Your task to perform on an android device: install app "AliExpress" Image 0: 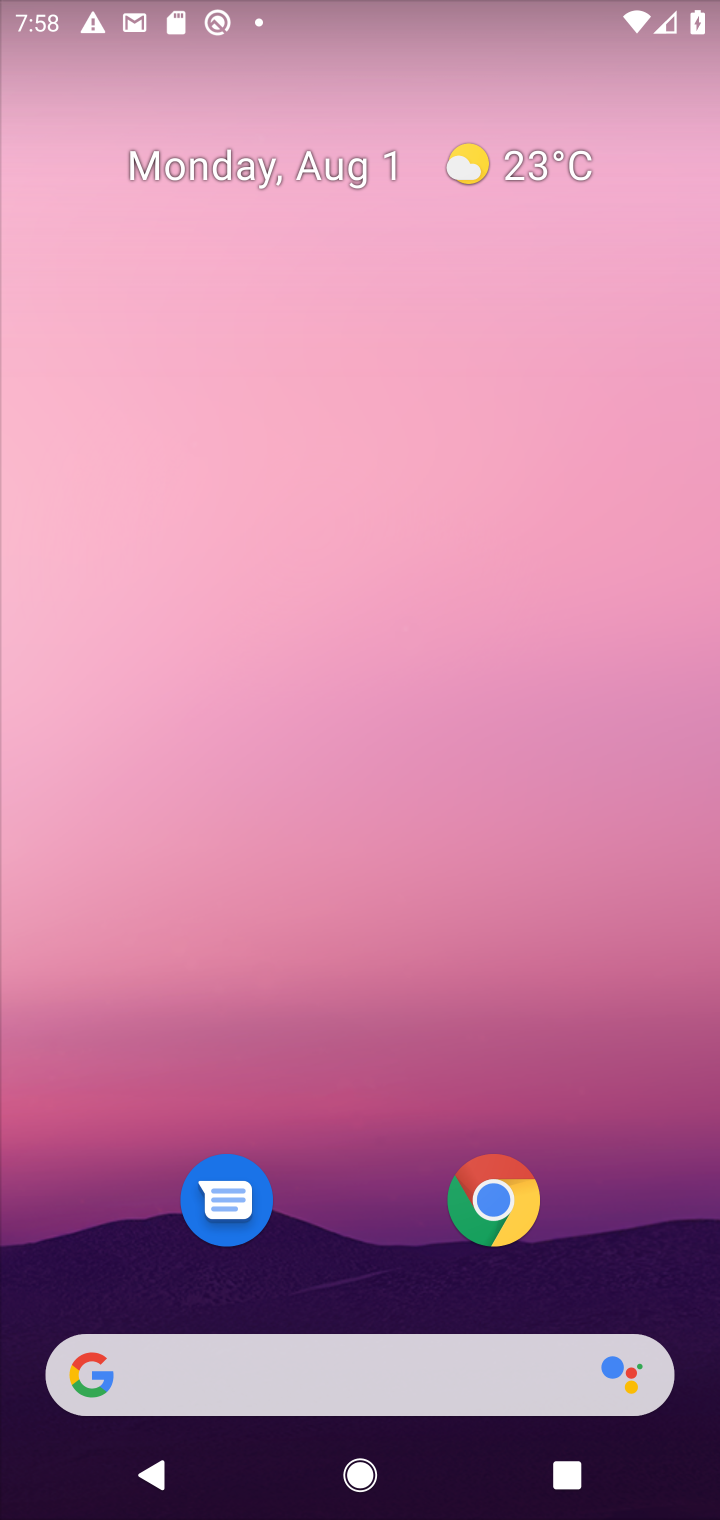
Step 0: press home button
Your task to perform on an android device: install app "AliExpress" Image 1: 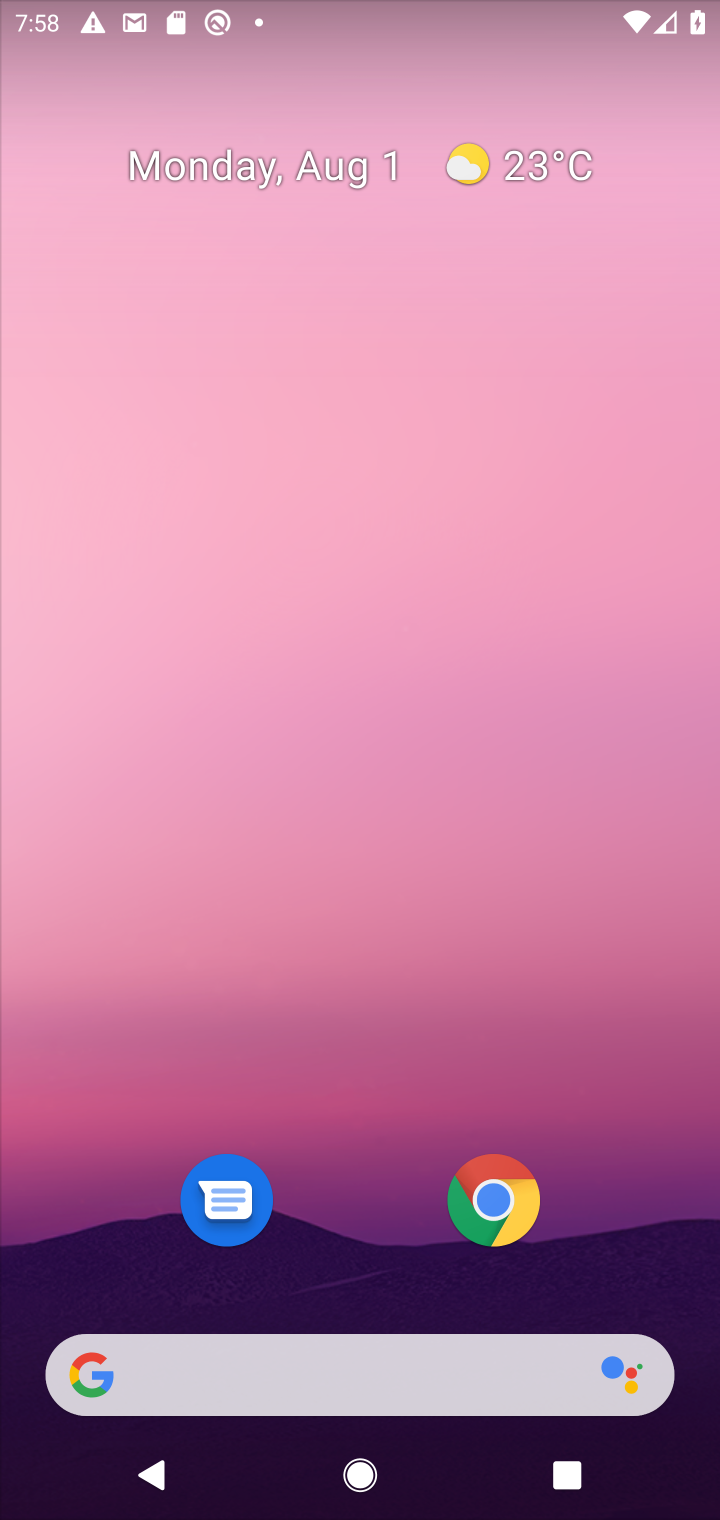
Step 1: drag from (343, 1263) to (365, 192)
Your task to perform on an android device: install app "AliExpress" Image 2: 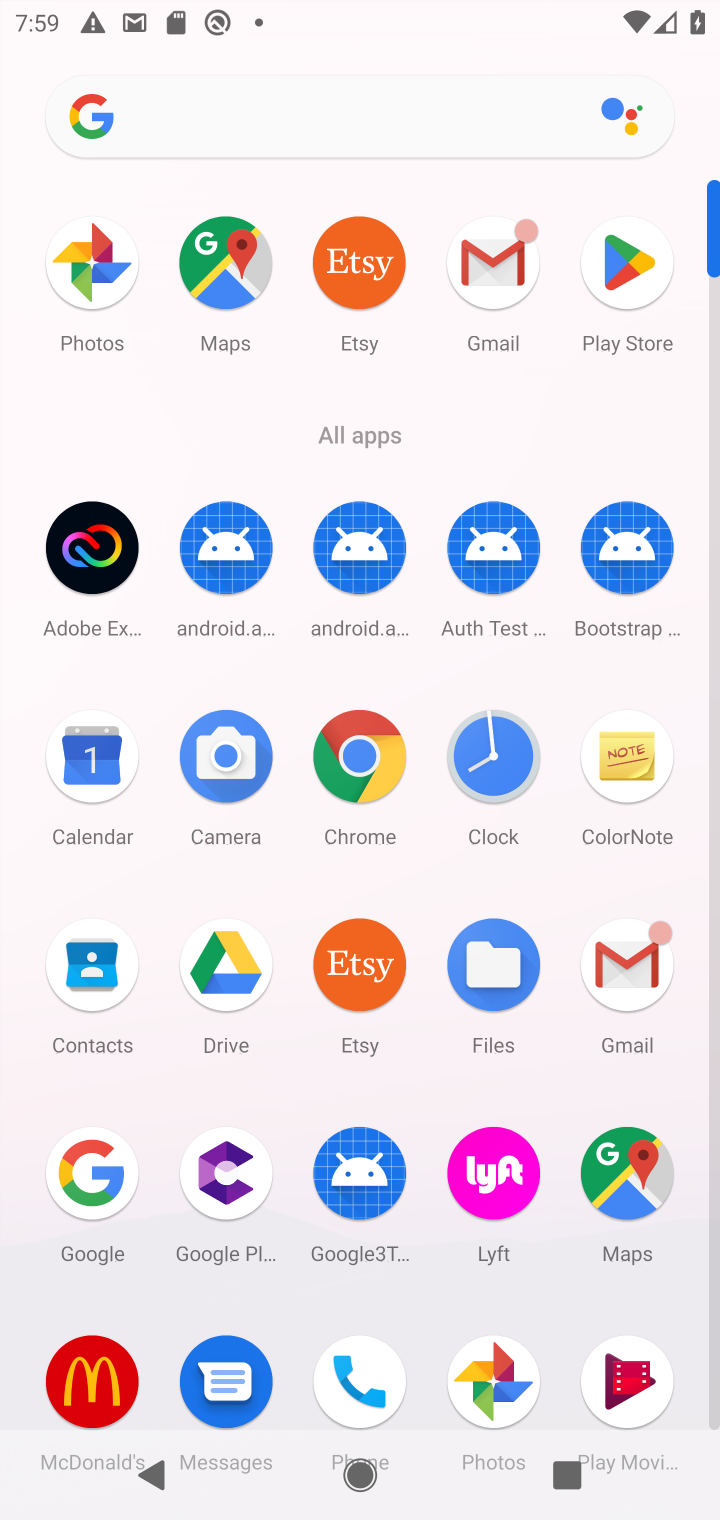
Step 2: click (634, 255)
Your task to perform on an android device: install app "AliExpress" Image 3: 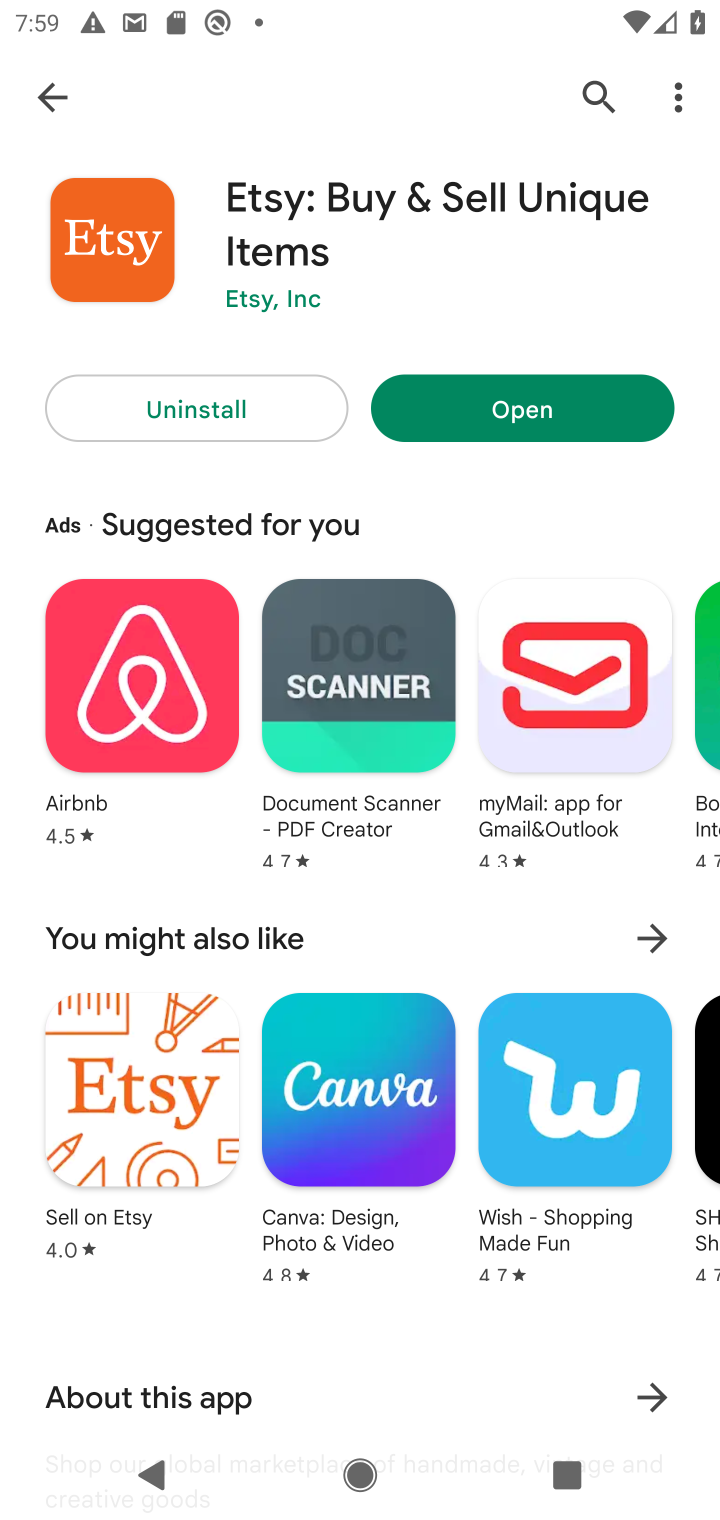
Step 3: click (41, 91)
Your task to perform on an android device: install app "AliExpress" Image 4: 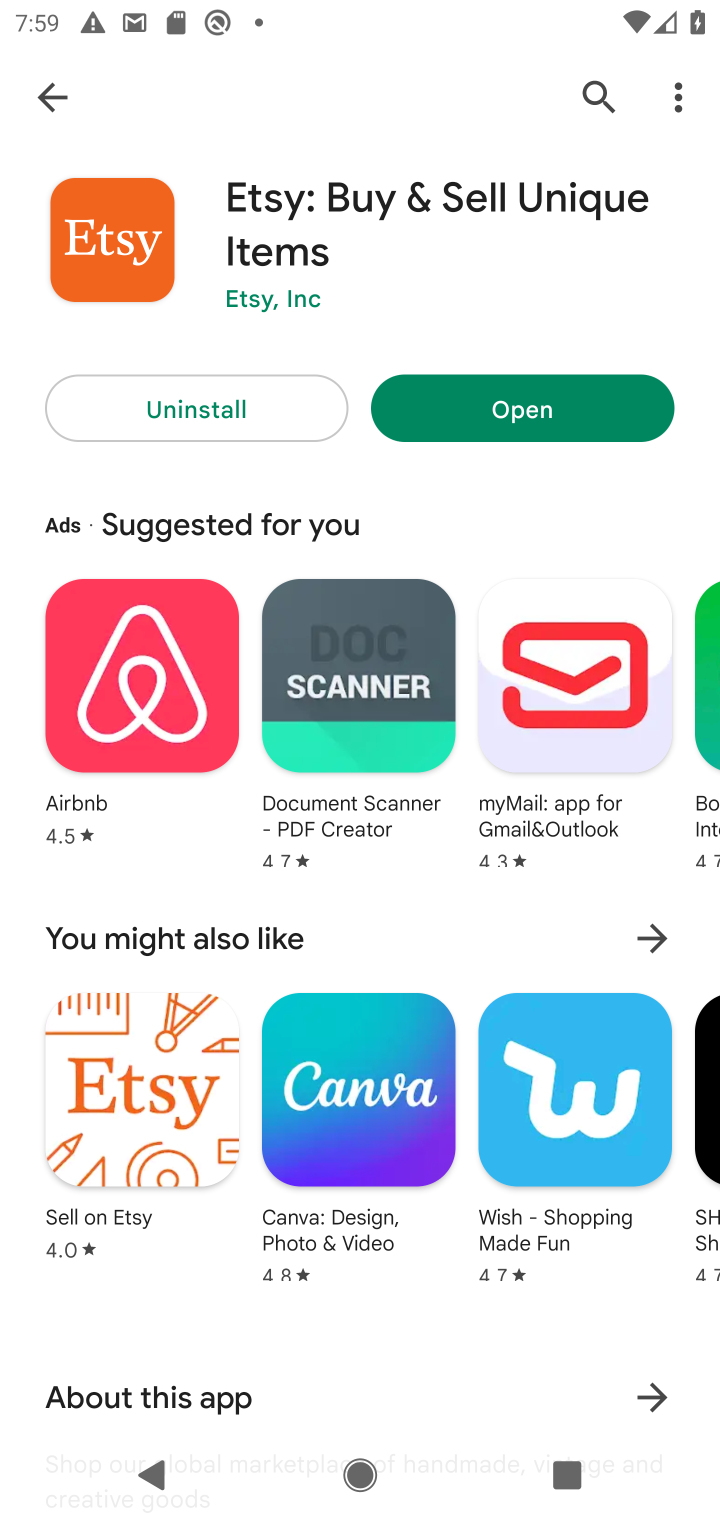
Step 4: click (588, 93)
Your task to perform on an android device: install app "AliExpress" Image 5: 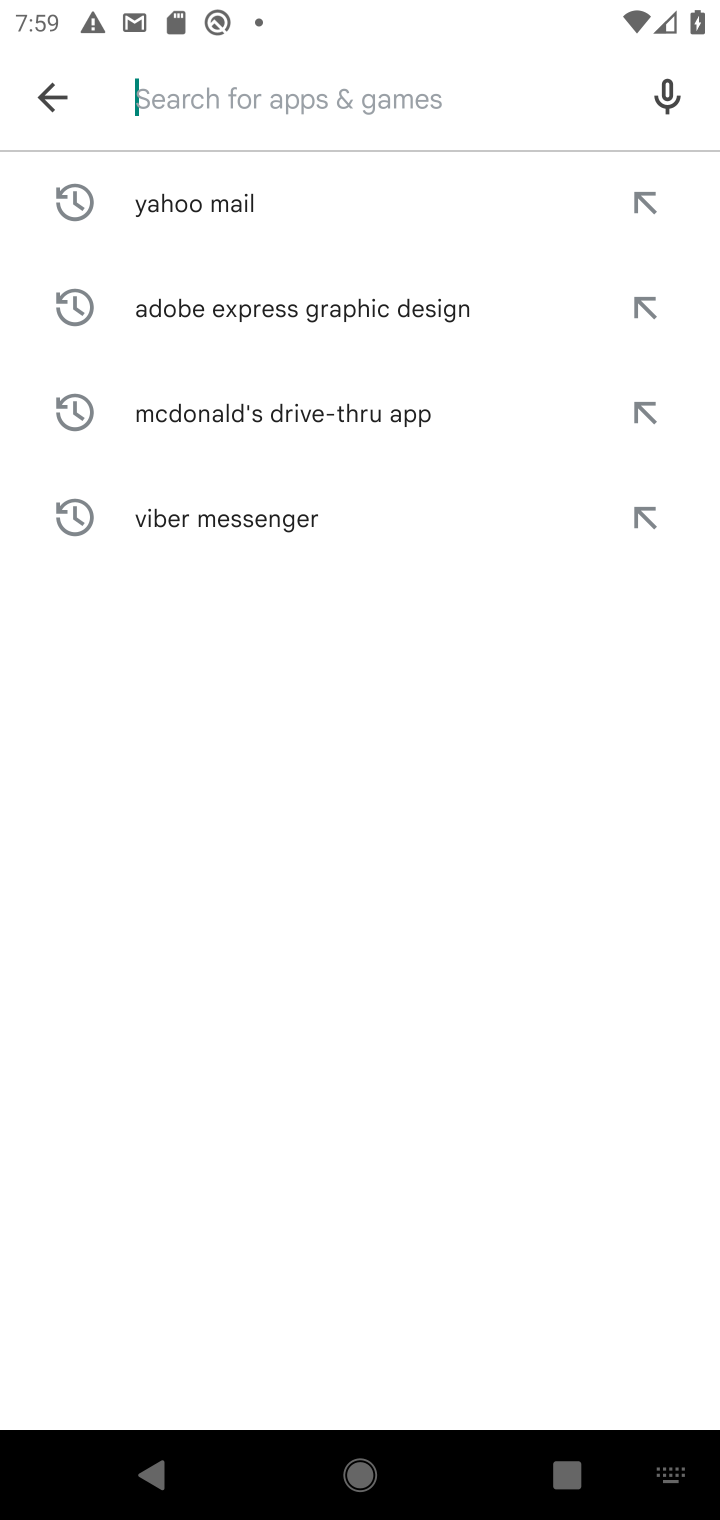
Step 5: type "AliExpress"
Your task to perform on an android device: install app "AliExpress" Image 6: 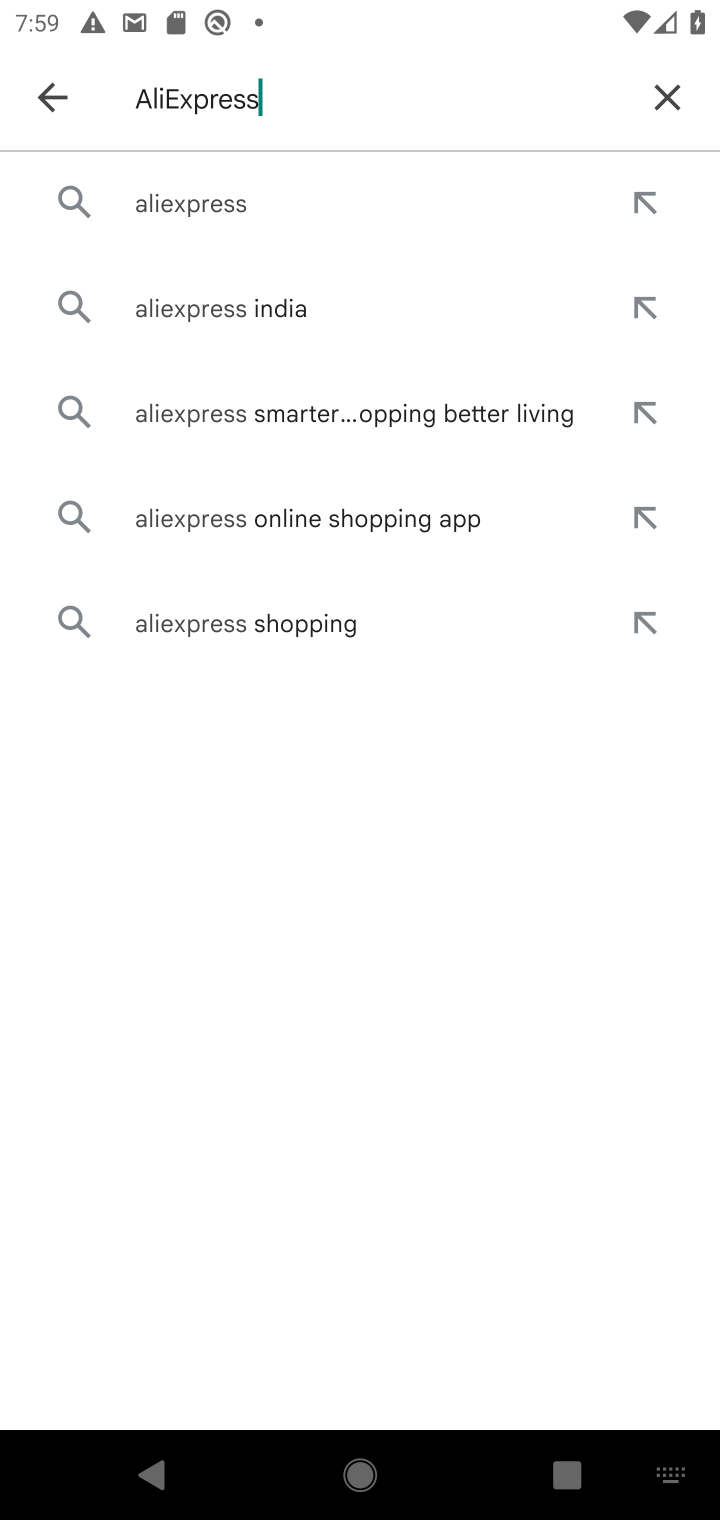
Step 6: click (242, 213)
Your task to perform on an android device: install app "AliExpress" Image 7: 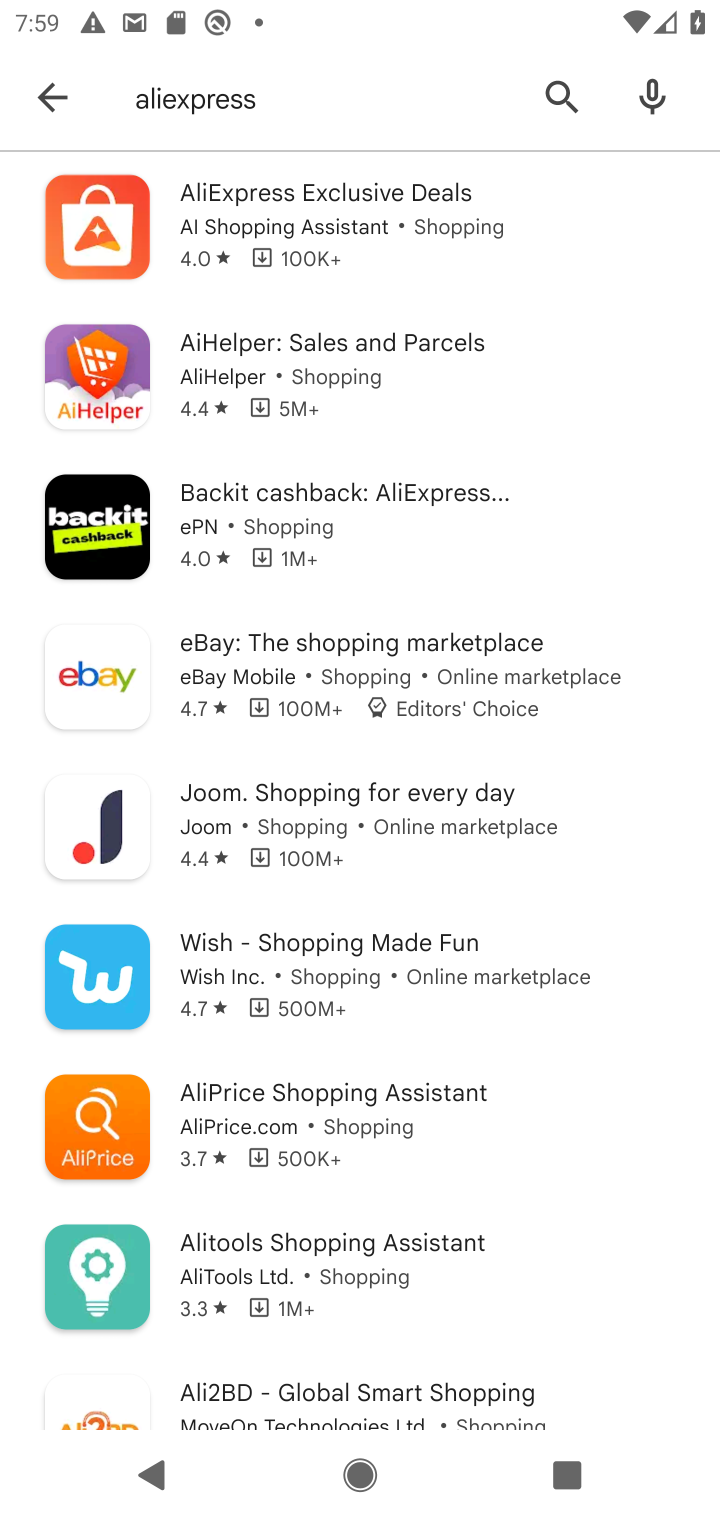
Step 7: click (340, 220)
Your task to perform on an android device: install app "AliExpress" Image 8: 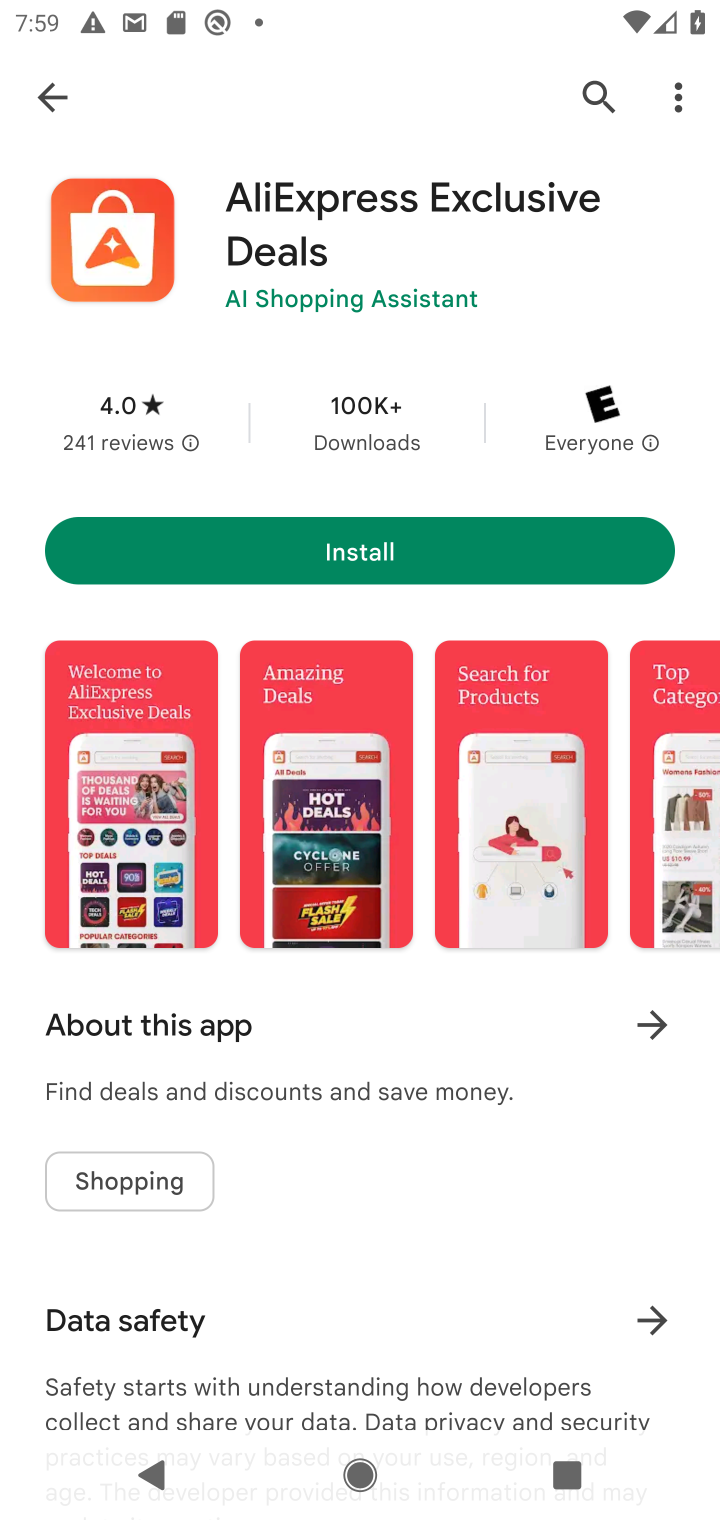
Step 8: click (408, 548)
Your task to perform on an android device: install app "AliExpress" Image 9: 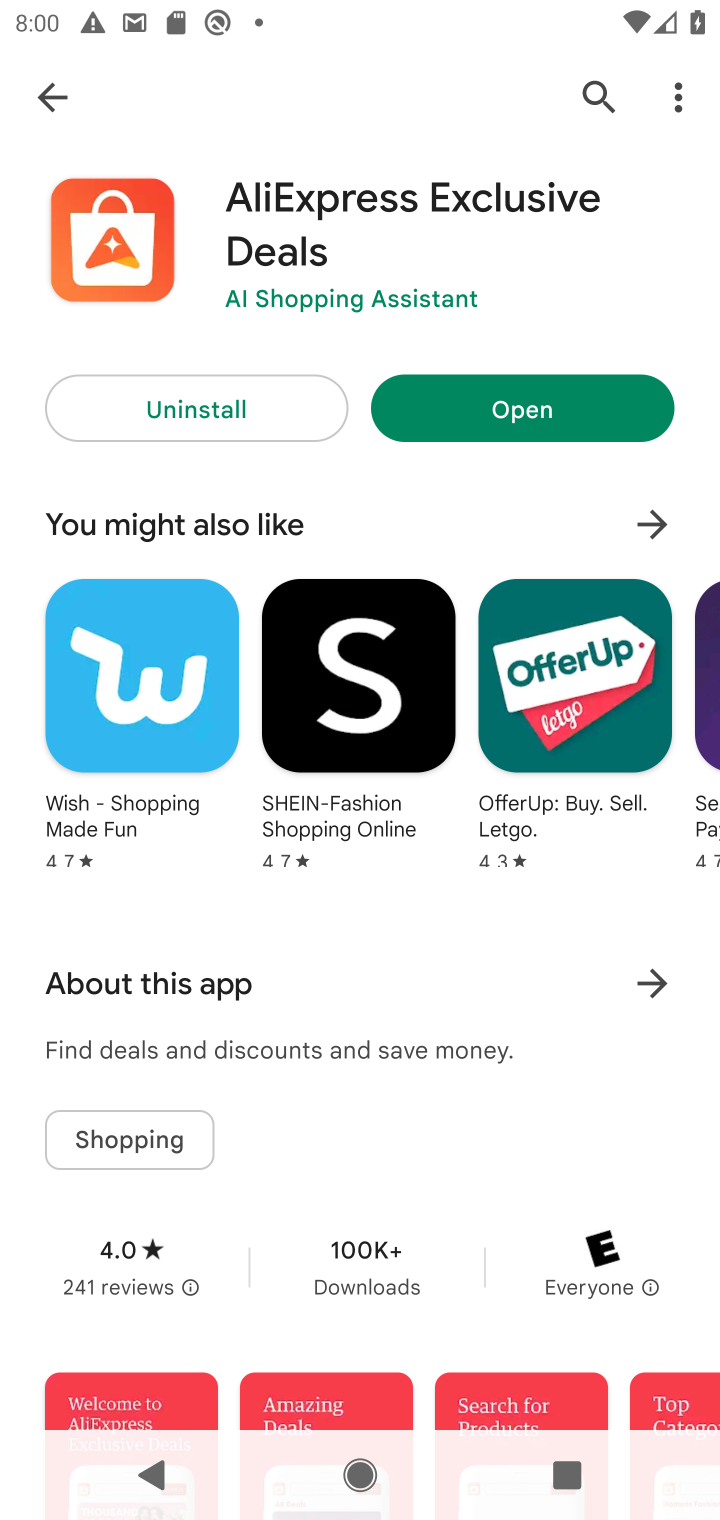
Step 9: click (521, 407)
Your task to perform on an android device: install app "AliExpress" Image 10: 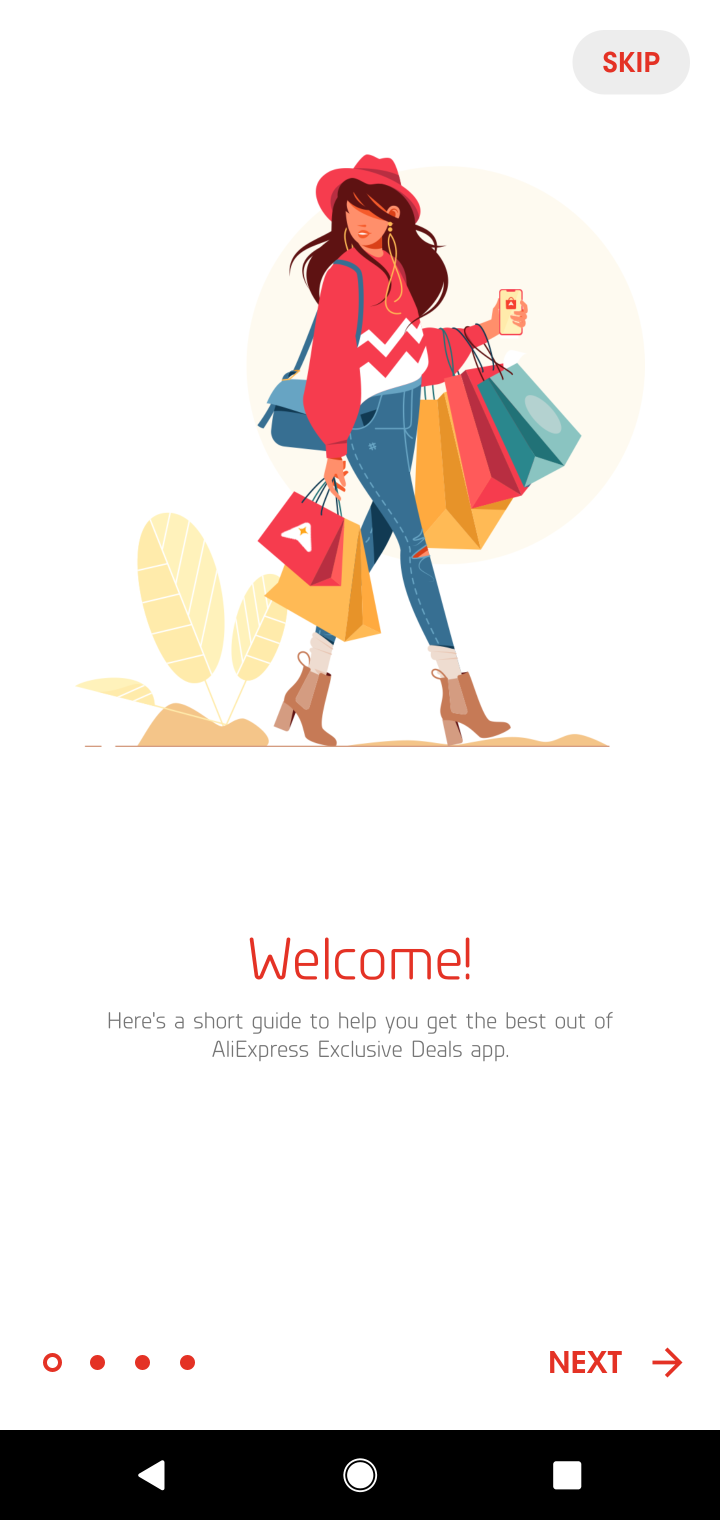
Step 10: task complete